Your task to perform on an android device: toggle data saver in the chrome app Image 0: 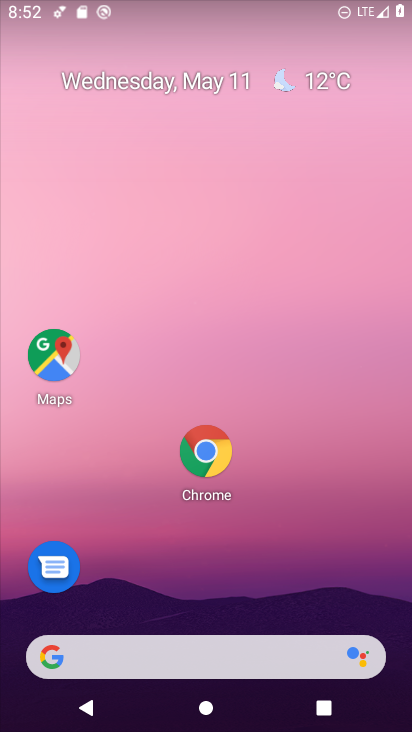
Step 0: drag from (204, 663) to (325, 196)
Your task to perform on an android device: toggle data saver in the chrome app Image 1: 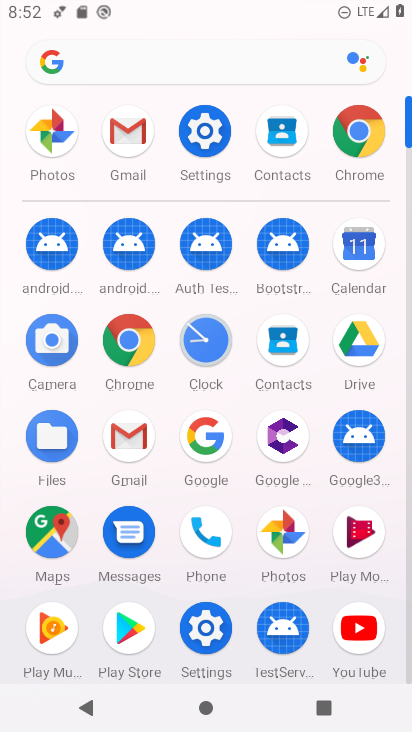
Step 1: click (357, 137)
Your task to perform on an android device: toggle data saver in the chrome app Image 2: 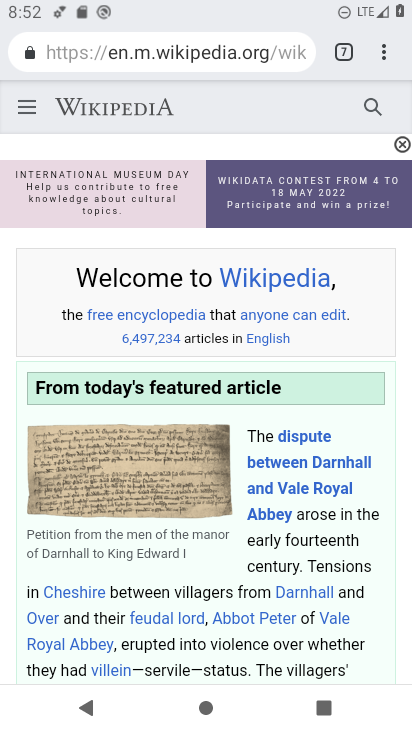
Step 2: drag from (384, 51) to (234, 602)
Your task to perform on an android device: toggle data saver in the chrome app Image 3: 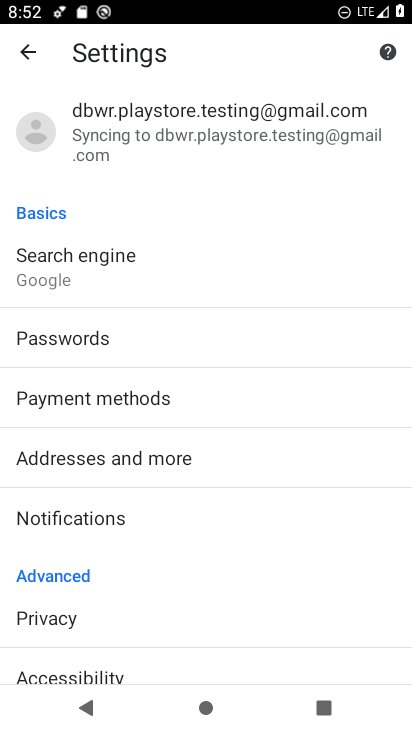
Step 3: drag from (167, 636) to (282, 302)
Your task to perform on an android device: toggle data saver in the chrome app Image 4: 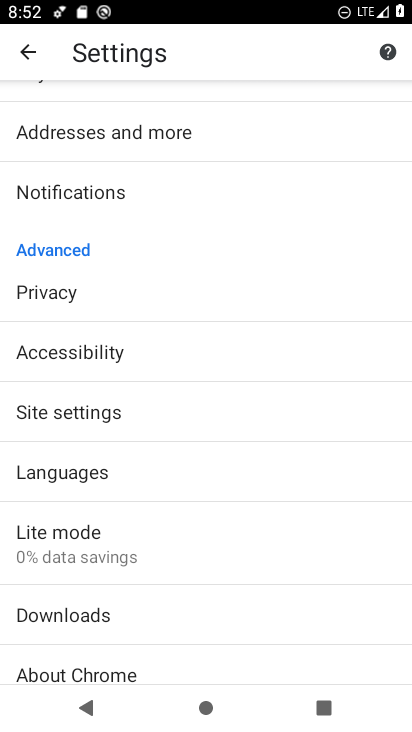
Step 4: click (72, 540)
Your task to perform on an android device: toggle data saver in the chrome app Image 5: 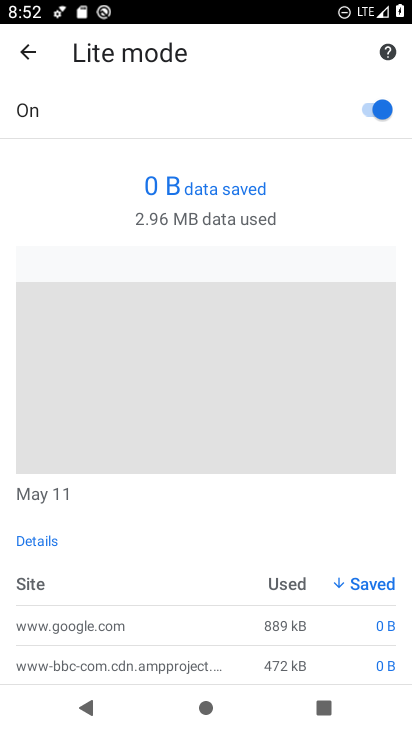
Step 5: click (365, 111)
Your task to perform on an android device: toggle data saver in the chrome app Image 6: 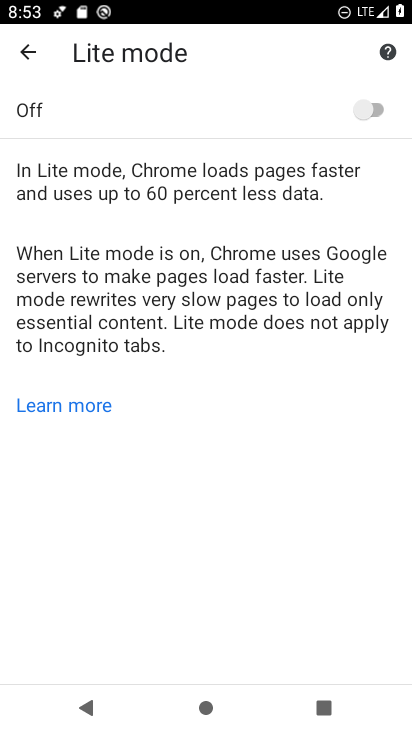
Step 6: task complete